Your task to perform on an android device: delete the emails in spam in the gmail app Image 0: 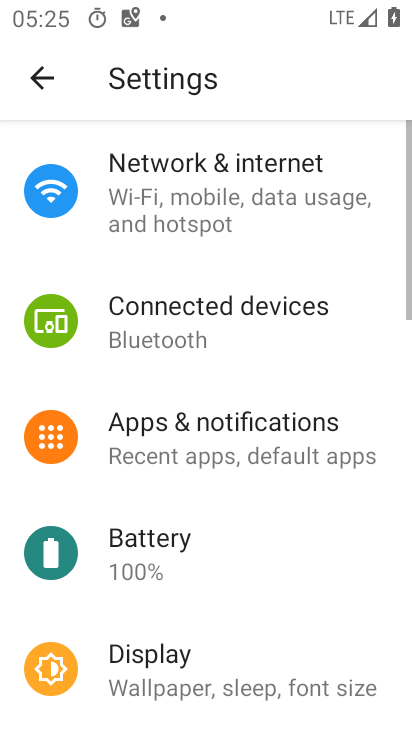
Step 0: press home button
Your task to perform on an android device: delete the emails in spam in the gmail app Image 1: 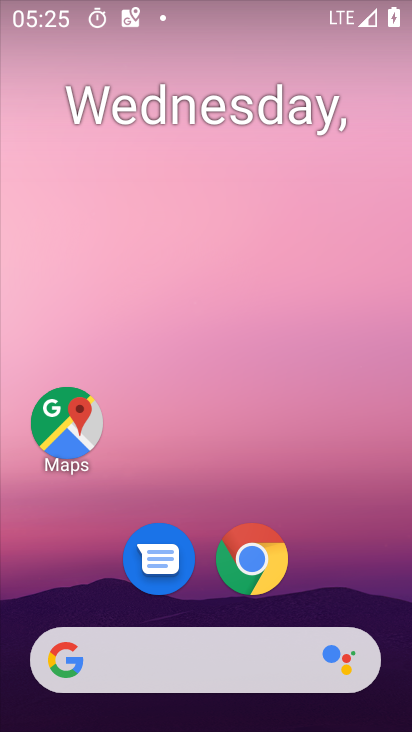
Step 1: drag from (333, 483) to (220, 15)
Your task to perform on an android device: delete the emails in spam in the gmail app Image 2: 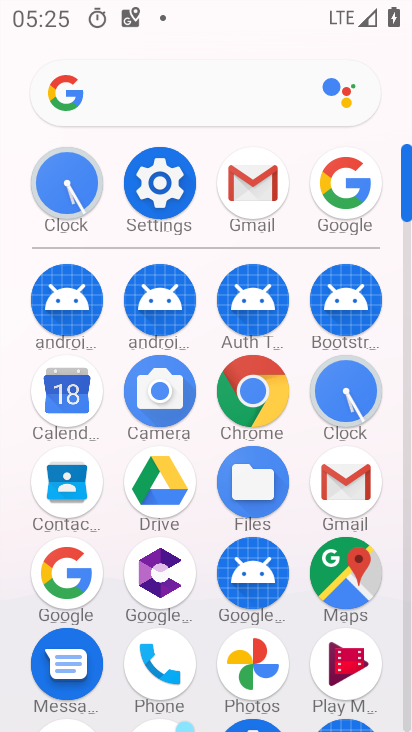
Step 2: click (356, 492)
Your task to perform on an android device: delete the emails in spam in the gmail app Image 3: 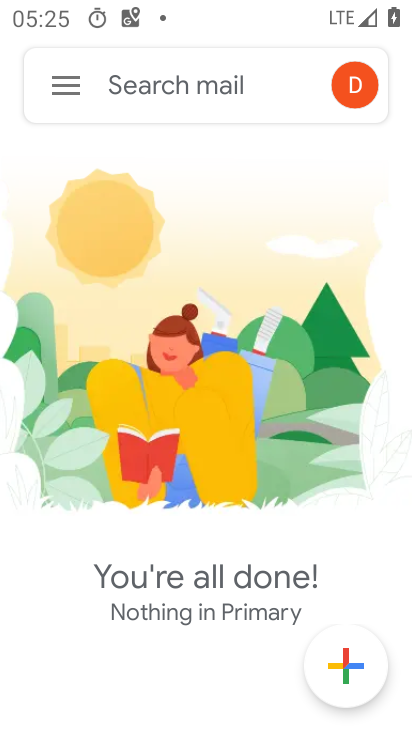
Step 3: click (61, 83)
Your task to perform on an android device: delete the emails in spam in the gmail app Image 4: 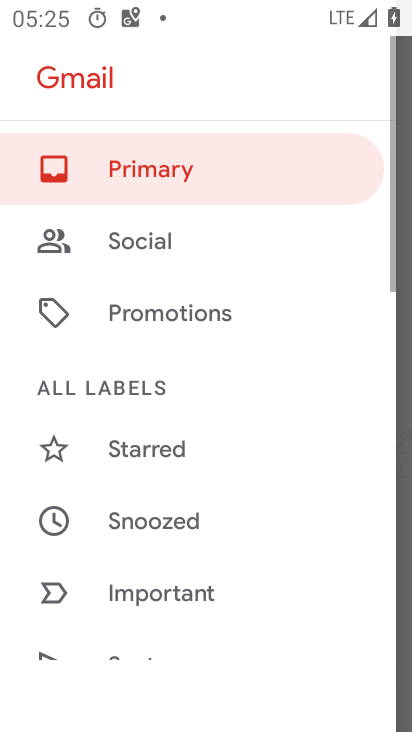
Step 4: drag from (229, 633) to (250, 162)
Your task to perform on an android device: delete the emails in spam in the gmail app Image 5: 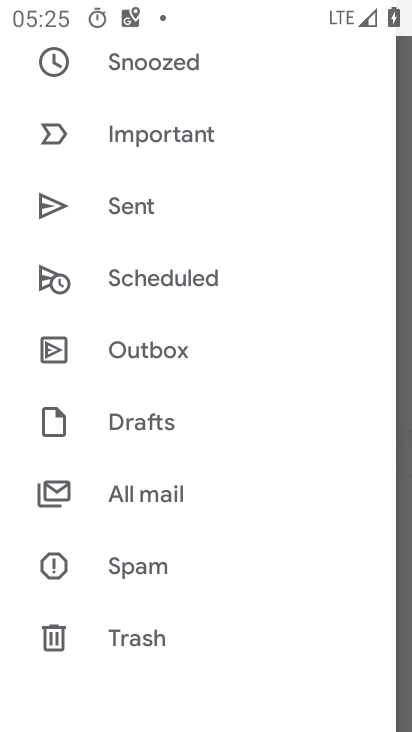
Step 5: click (146, 572)
Your task to perform on an android device: delete the emails in spam in the gmail app Image 6: 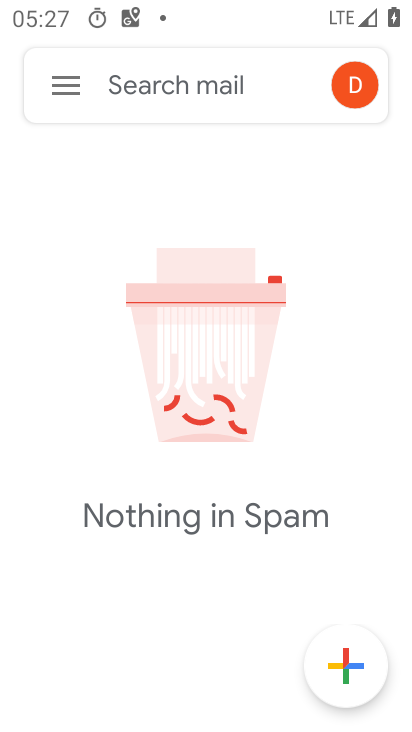
Step 6: task complete